Your task to perform on an android device: check the backup settings in the google photos Image 0: 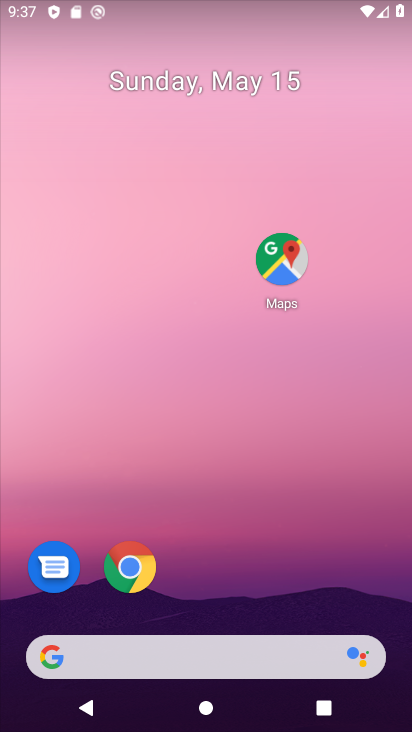
Step 0: drag from (238, 567) to (157, 69)
Your task to perform on an android device: check the backup settings in the google photos Image 1: 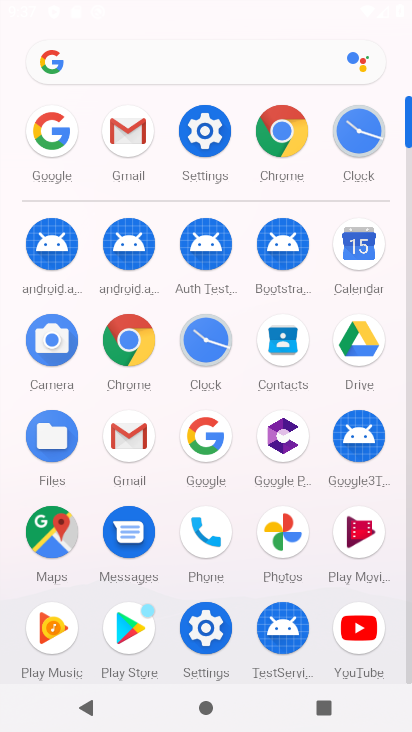
Step 1: click (279, 528)
Your task to perform on an android device: check the backup settings in the google photos Image 2: 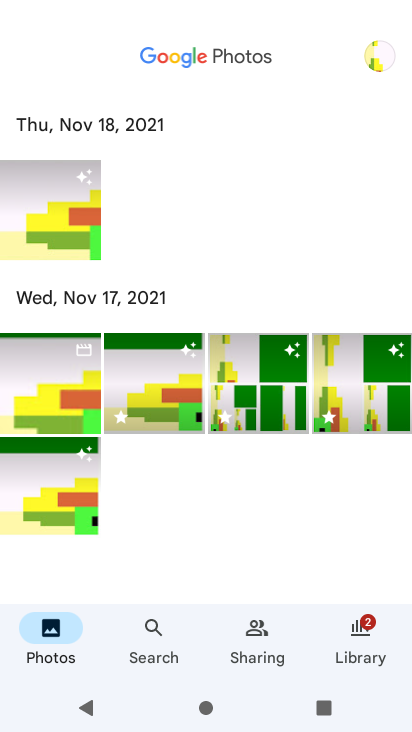
Step 2: click (378, 57)
Your task to perform on an android device: check the backup settings in the google photos Image 3: 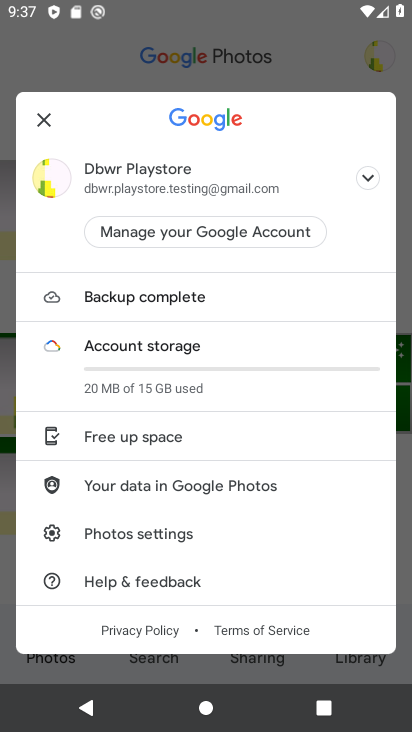
Step 3: click (171, 524)
Your task to perform on an android device: check the backup settings in the google photos Image 4: 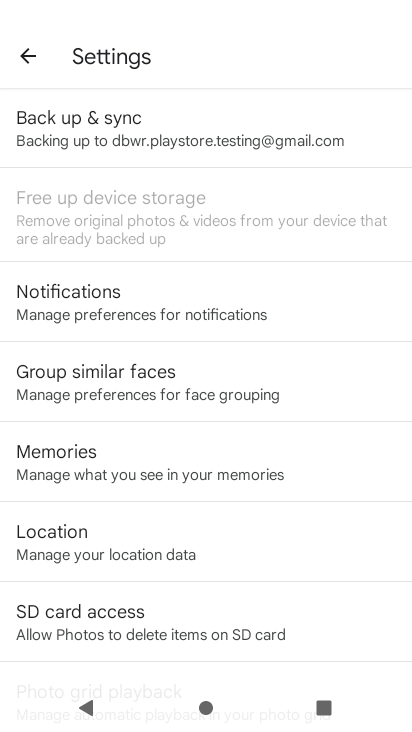
Step 4: click (172, 104)
Your task to perform on an android device: check the backup settings in the google photos Image 5: 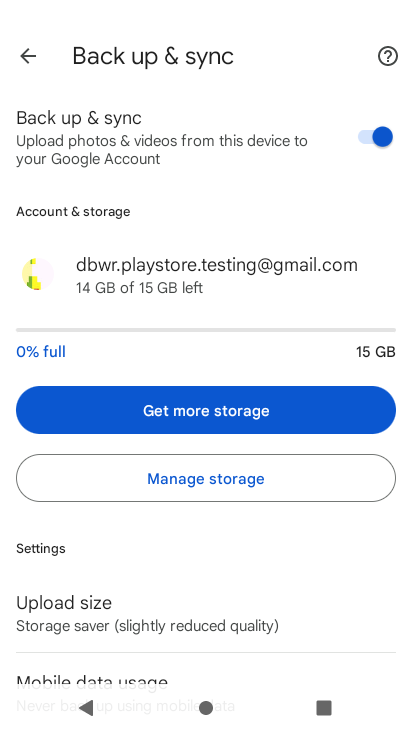
Step 5: task complete